Your task to perform on an android device: turn on wifi Image 0: 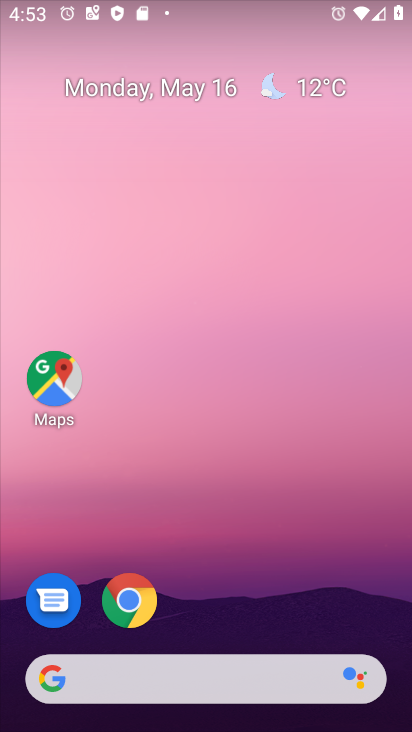
Step 0: drag from (196, 643) to (194, 348)
Your task to perform on an android device: turn on wifi Image 1: 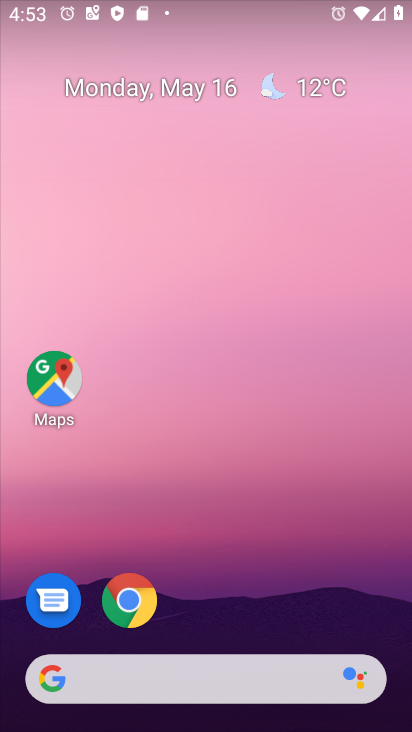
Step 1: drag from (225, 652) to (207, 237)
Your task to perform on an android device: turn on wifi Image 2: 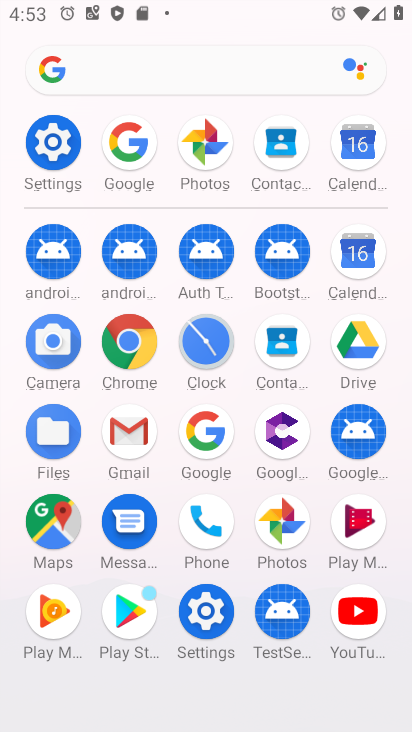
Step 2: click (51, 145)
Your task to perform on an android device: turn on wifi Image 3: 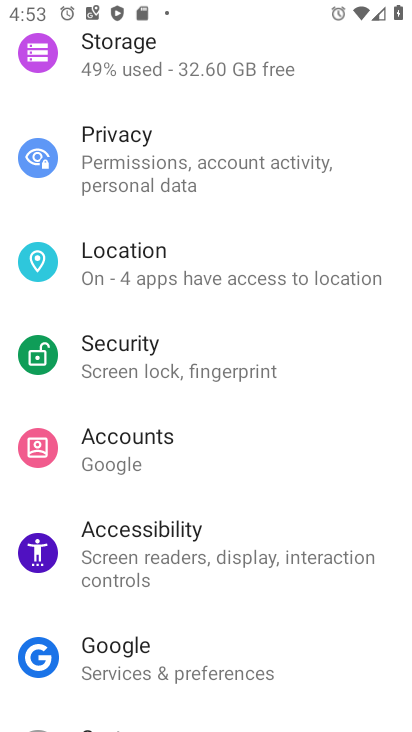
Step 3: drag from (186, 83) to (192, 528)
Your task to perform on an android device: turn on wifi Image 4: 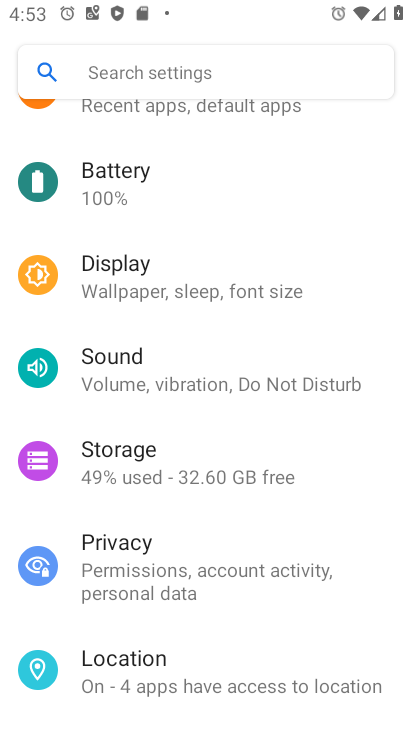
Step 4: drag from (194, 146) to (192, 563)
Your task to perform on an android device: turn on wifi Image 5: 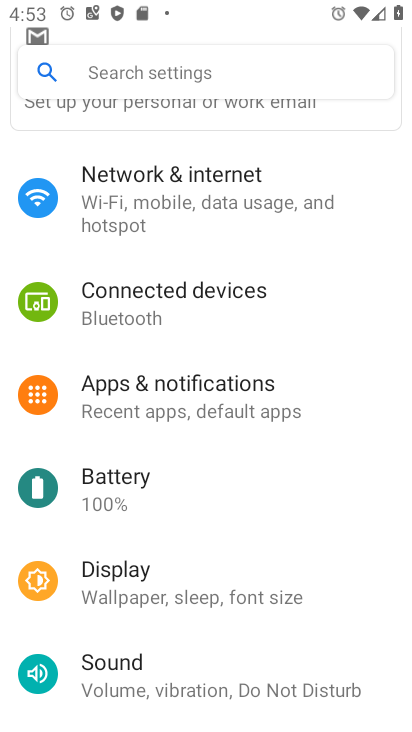
Step 5: click (143, 196)
Your task to perform on an android device: turn on wifi Image 6: 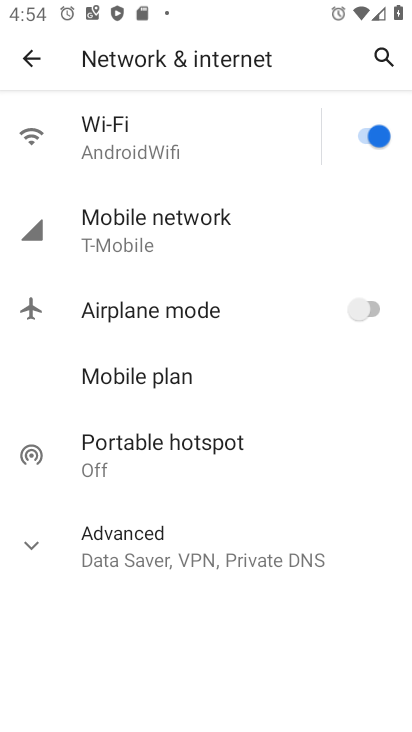
Step 6: task complete